Your task to perform on an android device: check out phone information Image 0: 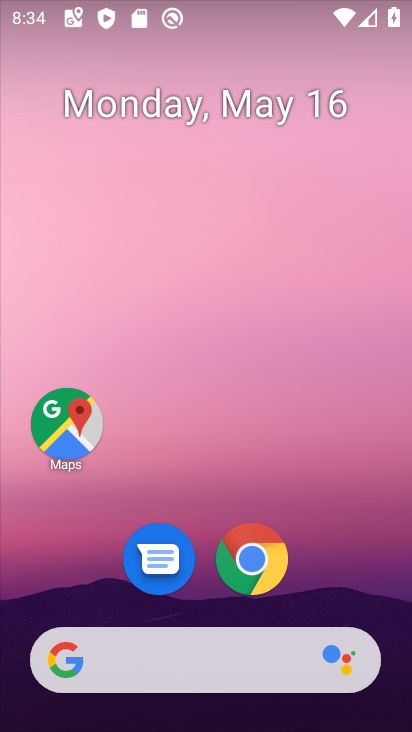
Step 0: drag from (329, 593) to (308, 12)
Your task to perform on an android device: check out phone information Image 1: 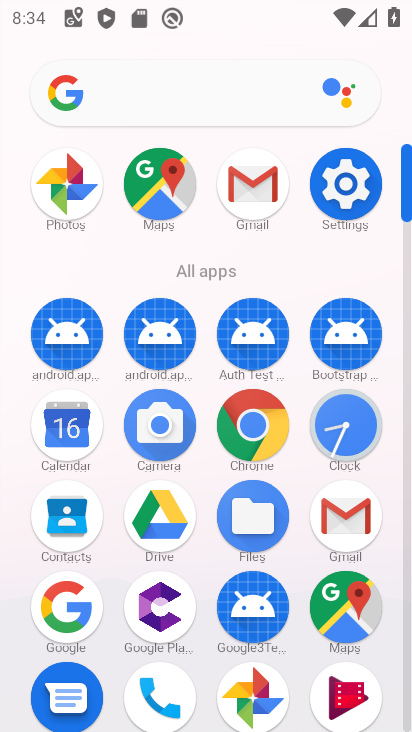
Step 1: click (340, 190)
Your task to perform on an android device: check out phone information Image 2: 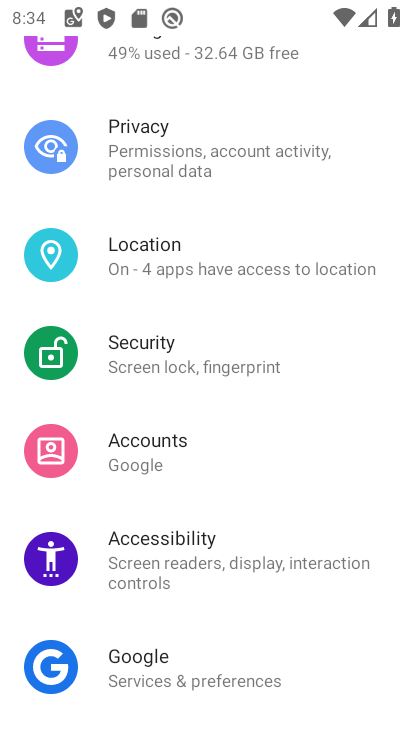
Step 2: drag from (202, 576) to (183, 477)
Your task to perform on an android device: check out phone information Image 3: 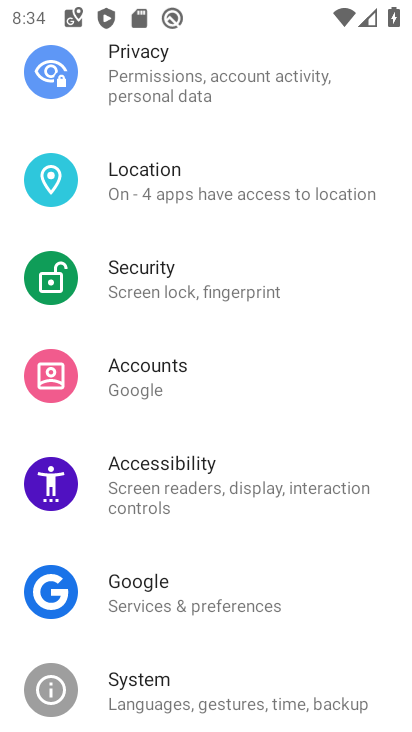
Step 3: drag from (192, 577) to (164, 423)
Your task to perform on an android device: check out phone information Image 4: 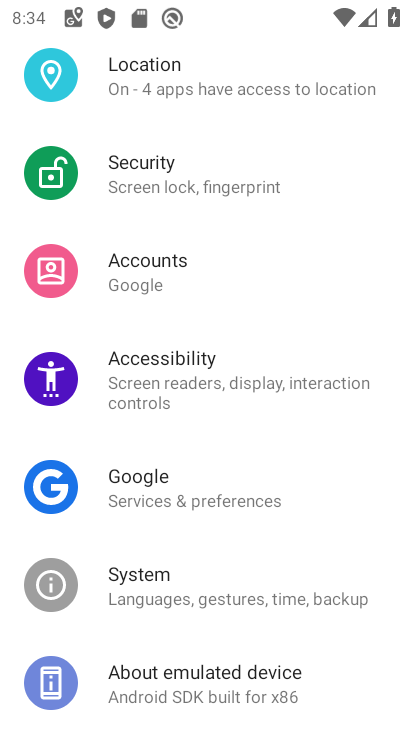
Step 4: click (175, 679)
Your task to perform on an android device: check out phone information Image 5: 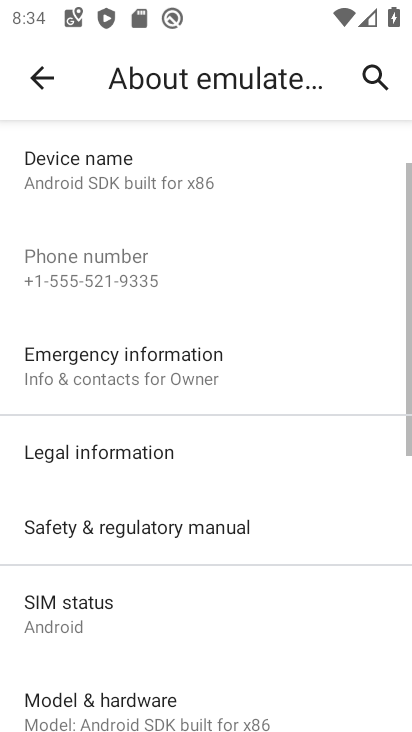
Step 5: task complete